Your task to perform on an android device: move an email to a new category in the gmail app Image 0: 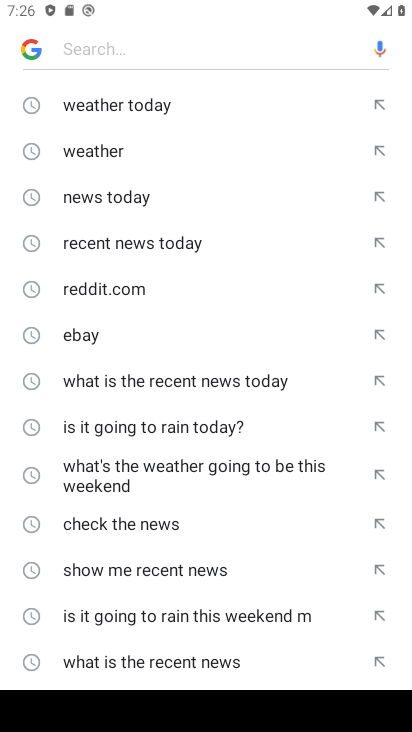
Step 0: press home button
Your task to perform on an android device: move an email to a new category in the gmail app Image 1: 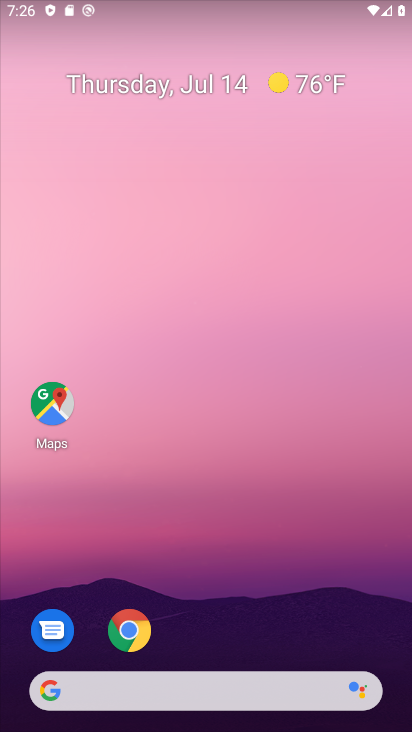
Step 1: drag from (238, 642) to (215, 223)
Your task to perform on an android device: move an email to a new category in the gmail app Image 2: 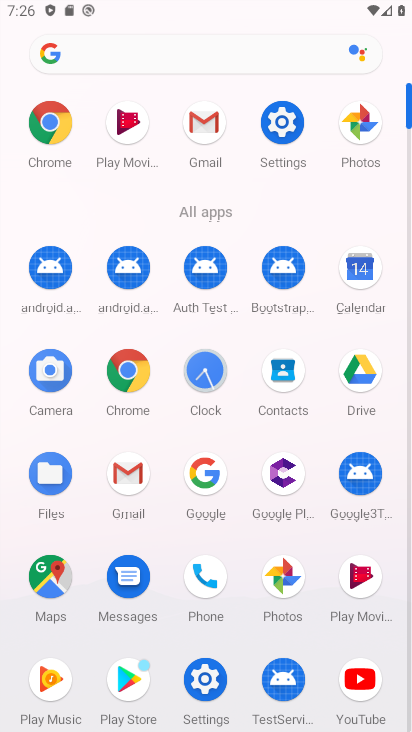
Step 2: click (206, 118)
Your task to perform on an android device: move an email to a new category in the gmail app Image 3: 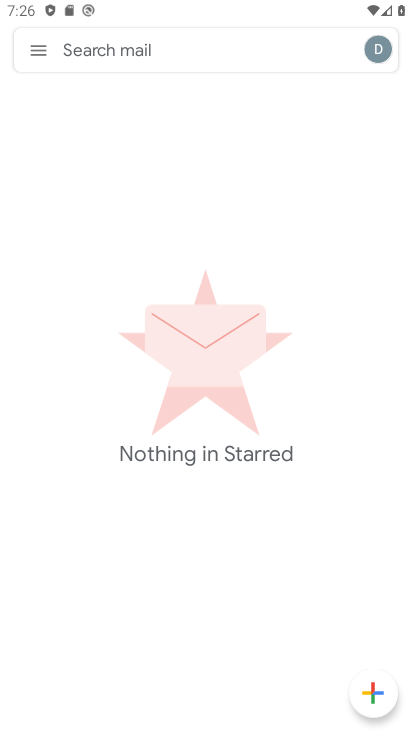
Step 3: click (33, 43)
Your task to perform on an android device: move an email to a new category in the gmail app Image 4: 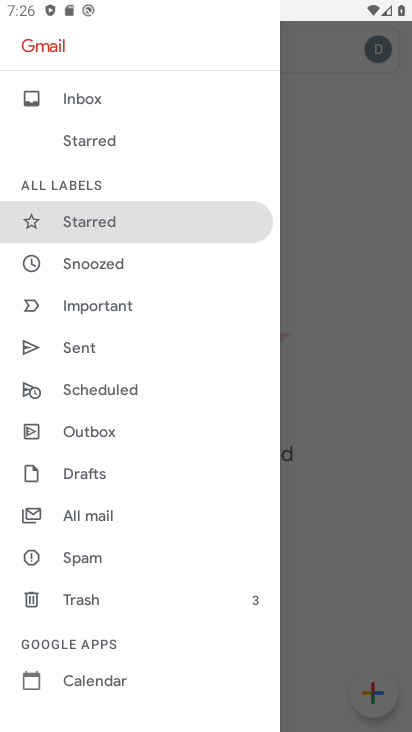
Step 4: click (109, 515)
Your task to perform on an android device: move an email to a new category in the gmail app Image 5: 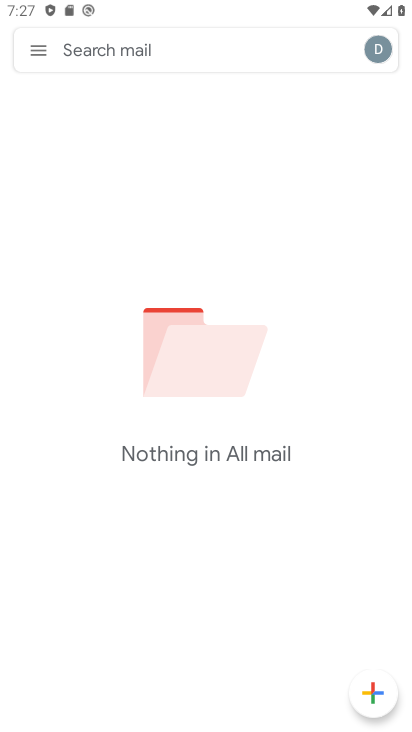
Step 5: task complete